Your task to perform on an android device: turn off picture-in-picture Image 0: 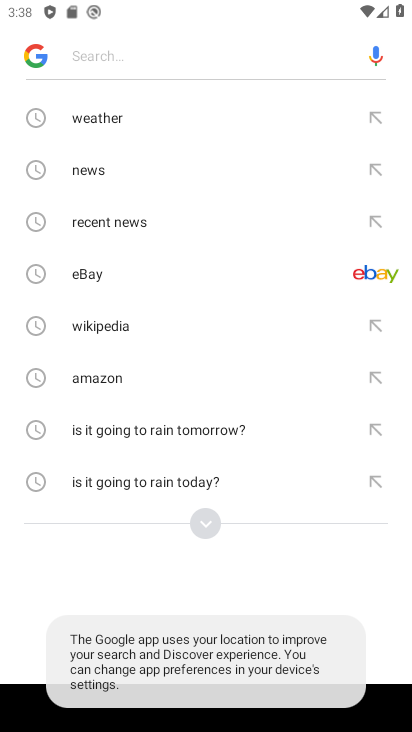
Step 0: press back button
Your task to perform on an android device: turn off picture-in-picture Image 1: 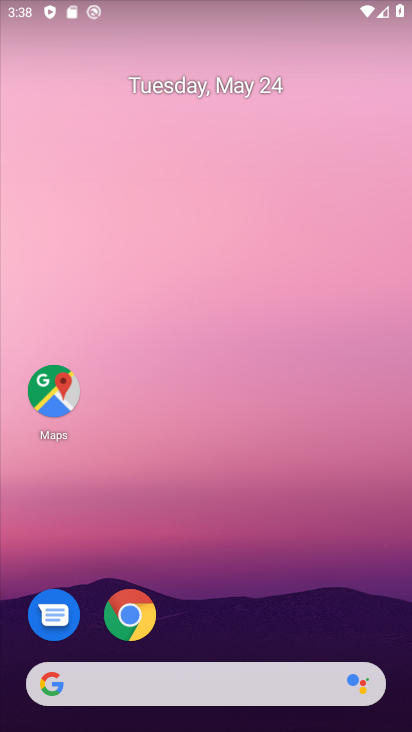
Step 1: drag from (283, 600) to (251, 51)
Your task to perform on an android device: turn off picture-in-picture Image 2: 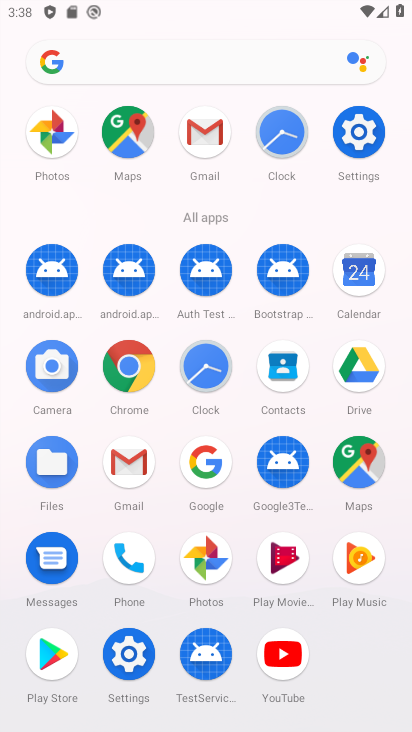
Step 2: click (358, 129)
Your task to perform on an android device: turn off picture-in-picture Image 3: 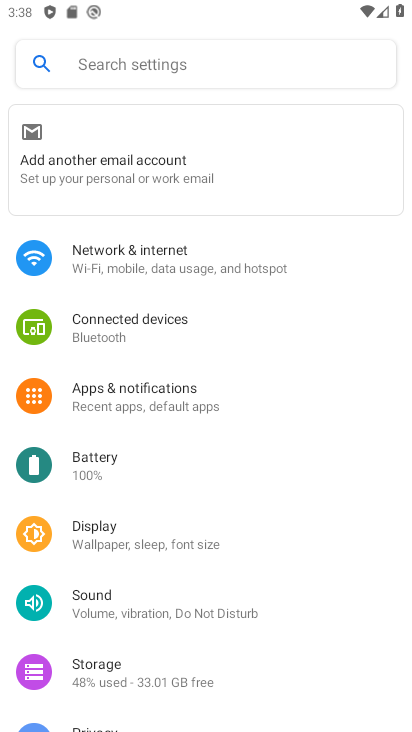
Step 3: drag from (240, 550) to (255, 140)
Your task to perform on an android device: turn off picture-in-picture Image 4: 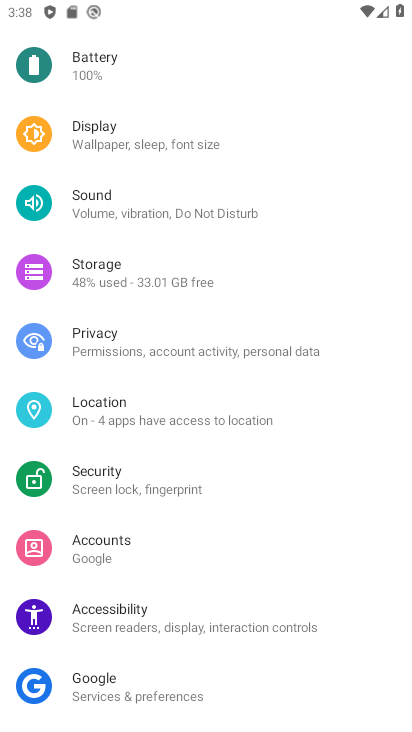
Step 4: drag from (171, 540) to (209, 117)
Your task to perform on an android device: turn off picture-in-picture Image 5: 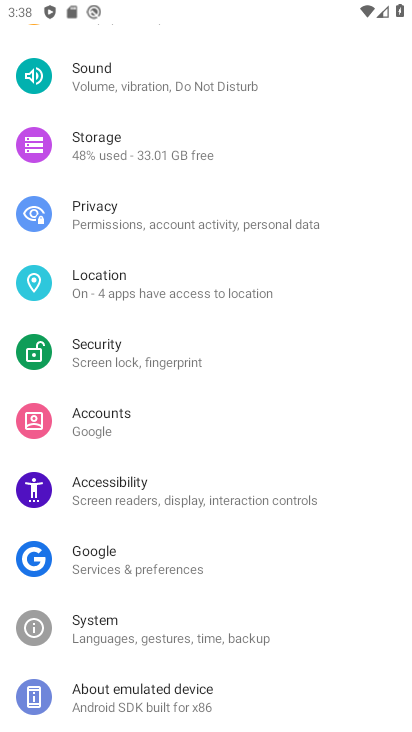
Step 5: drag from (191, 203) to (117, 542)
Your task to perform on an android device: turn off picture-in-picture Image 6: 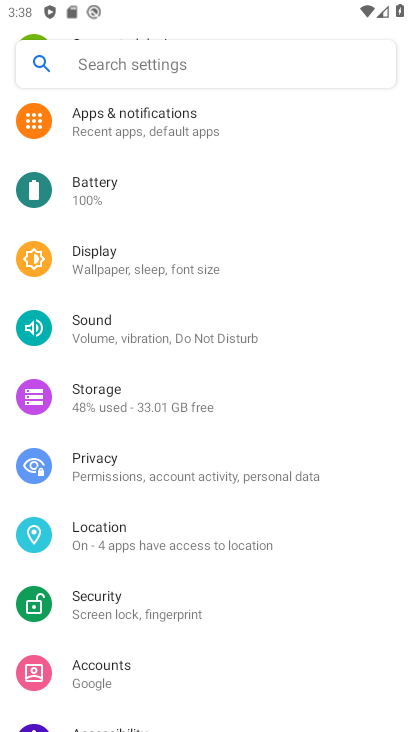
Step 6: click (173, 142)
Your task to perform on an android device: turn off picture-in-picture Image 7: 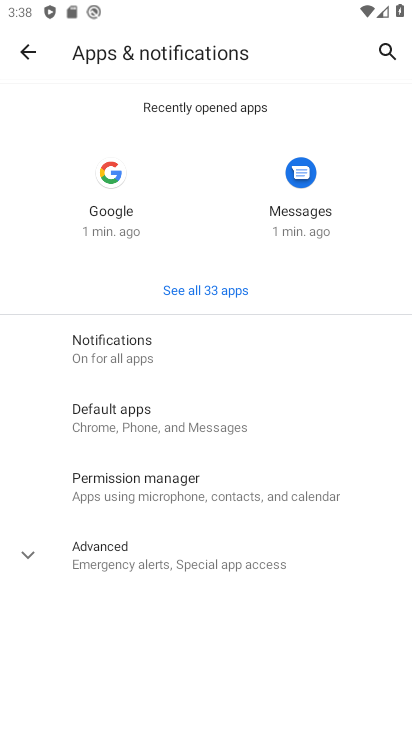
Step 7: click (46, 550)
Your task to perform on an android device: turn off picture-in-picture Image 8: 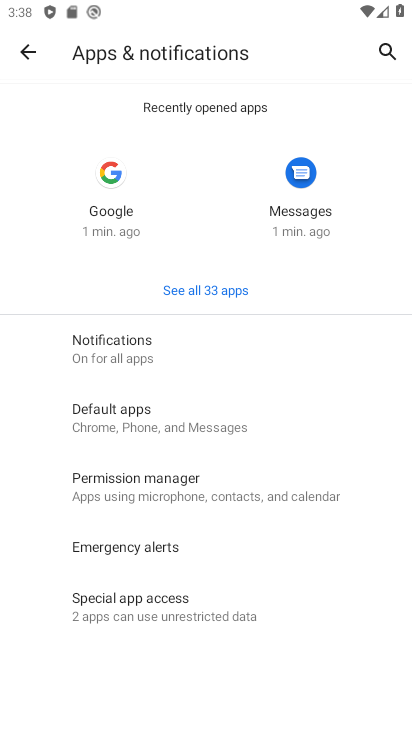
Step 8: click (158, 353)
Your task to perform on an android device: turn off picture-in-picture Image 9: 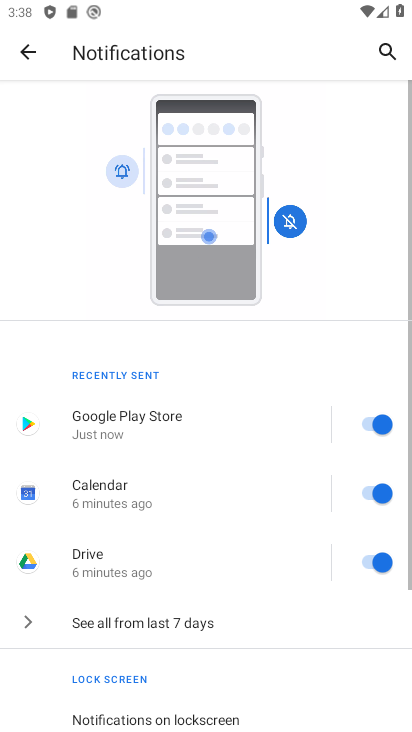
Step 9: click (36, 46)
Your task to perform on an android device: turn off picture-in-picture Image 10: 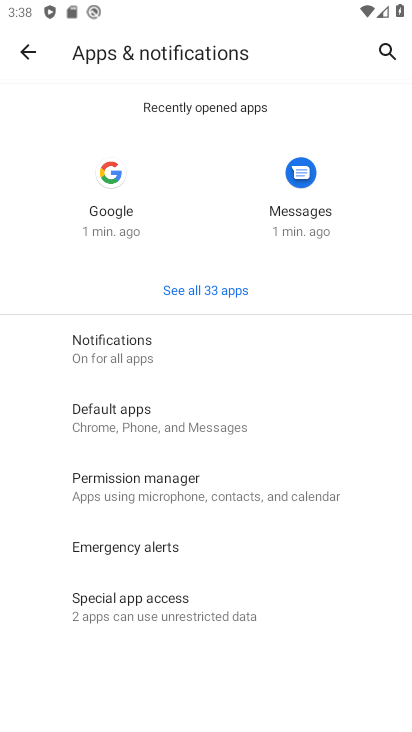
Step 10: press back button
Your task to perform on an android device: turn off picture-in-picture Image 11: 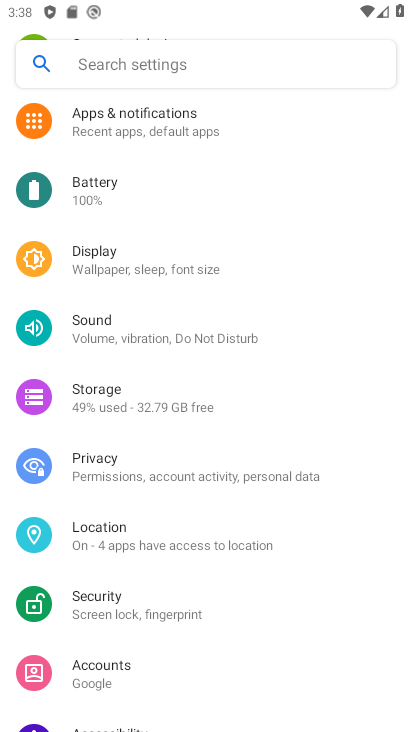
Step 11: click (169, 119)
Your task to perform on an android device: turn off picture-in-picture Image 12: 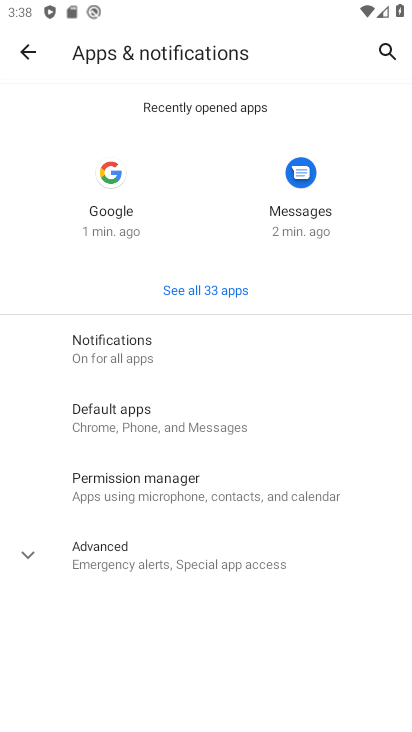
Step 12: click (50, 555)
Your task to perform on an android device: turn off picture-in-picture Image 13: 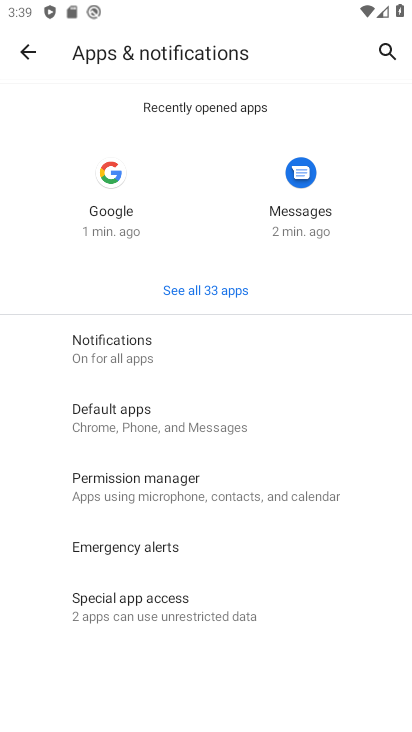
Step 13: click (160, 350)
Your task to perform on an android device: turn off picture-in-picture Image 14: 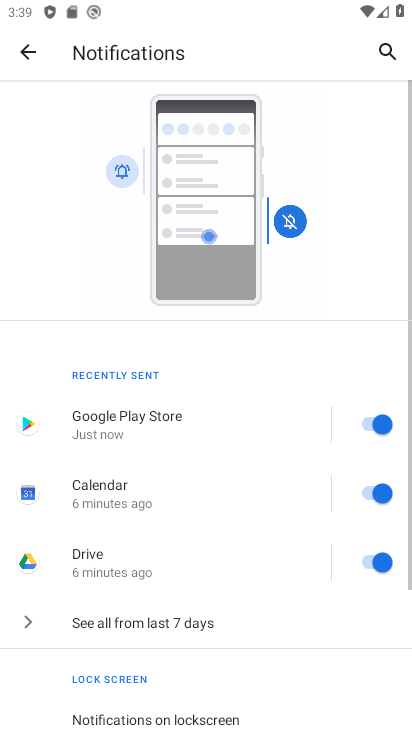
Step 14: drag from (249, 569) to (255, 115)
Your task to perform on an android device: turn off picture-in-picture Image 15: 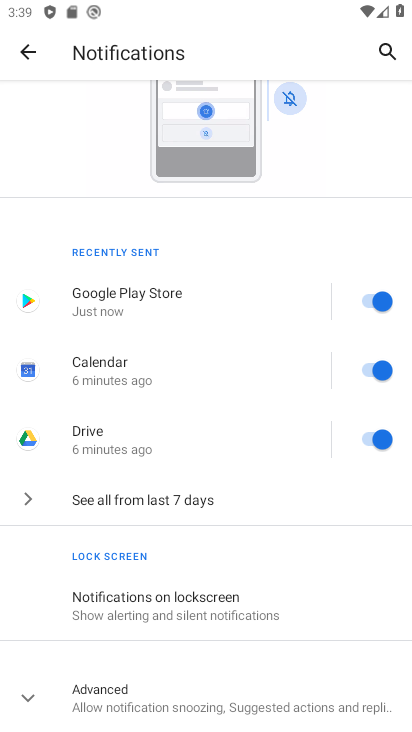
Step 15: click (55, 700)
Your task to perform on an android device: turn off picture-in-picture Image 16: 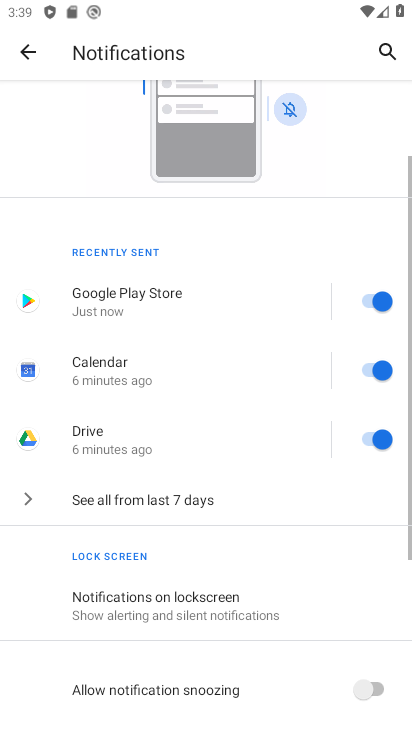
Step 16: drag from (208, 629) to (242, 158)
Your task to perform on an android device: turn off picture-in-picture Image 17: 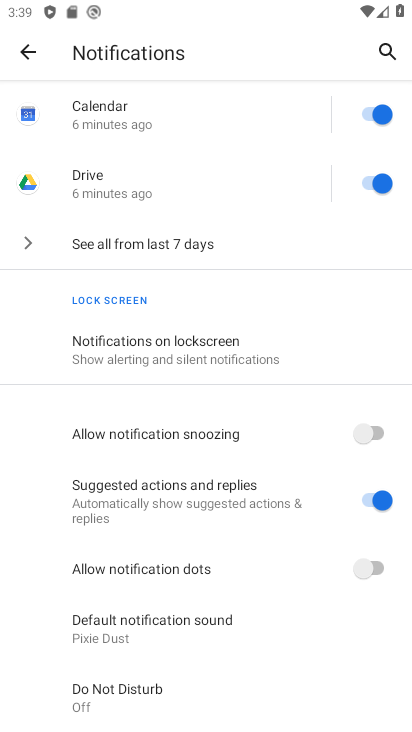
Step 17: drag from (180, 637) to (232, 188)
Your task to perform on an android device: turn off picture-in-picture Image 18: 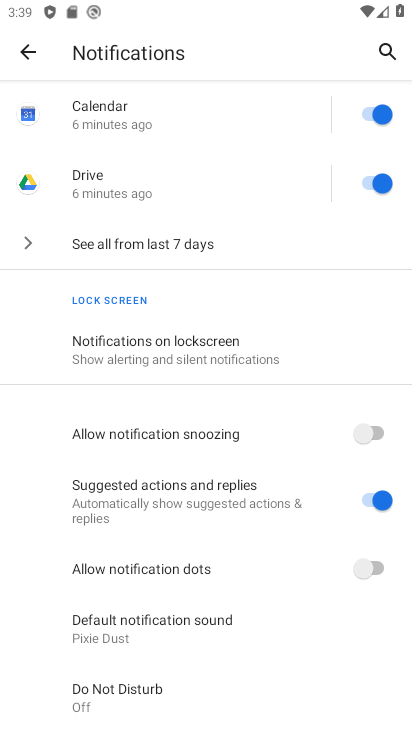
Step 18: drag from (238, 199) to (193, 567)
Your task to perform on an android device: turn off picture-in-picture Image 19: 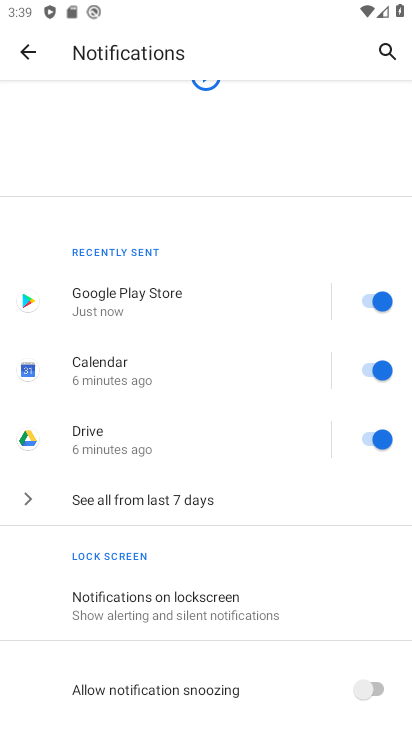
Step 19: drag from (180, 209) to (176, 633)
Your task to perform on an android device: turn off picture-in-picture Image 20: 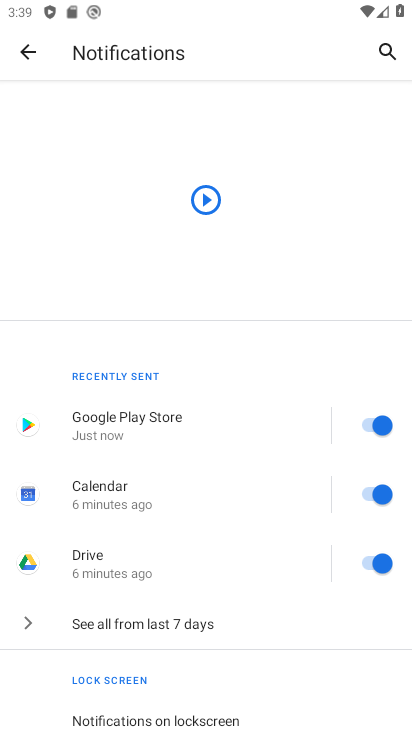
Step 20: click (29, 45)
Your task to perform on an android device: turn off picture-in-picture Image 21: 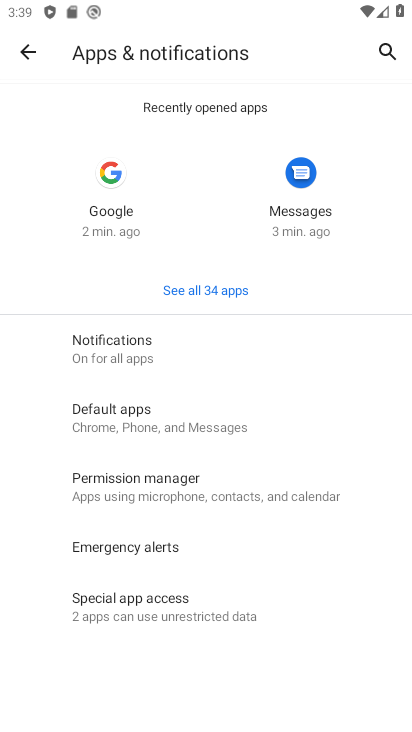
Step 21: click (112, 626)
Your task to perform on an android device: turn off picture-in-picture Image 22: 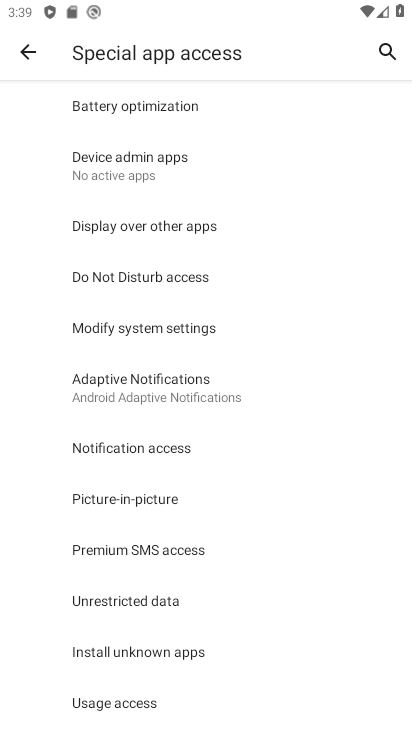
Step 22: click (128, 493)
Your task to perform on an android device: turn off picture-in-picture Image 23: 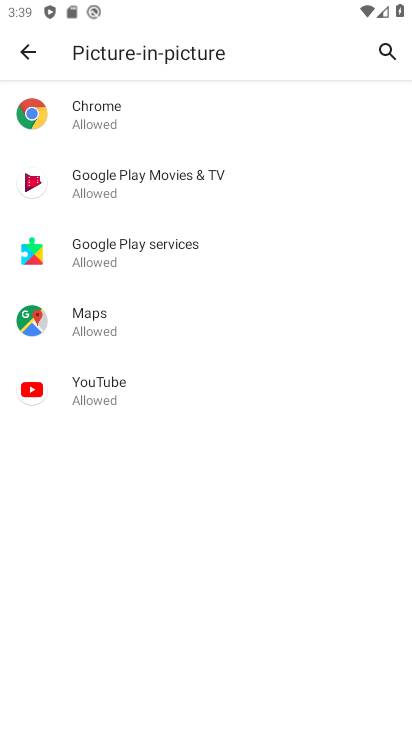
Step 23: click (109, 112)
Your task to perform on an android device: turn off picture-in-picture Image 24: 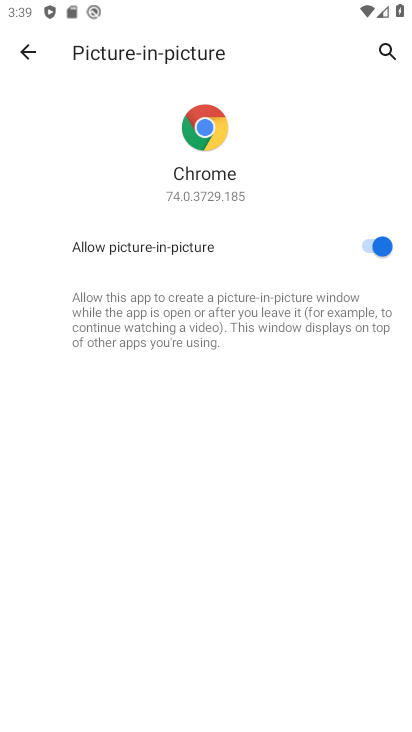
Step 24: click (371, 252)
Your task to perform on an android device: turn off picture-in-picture Image 25: 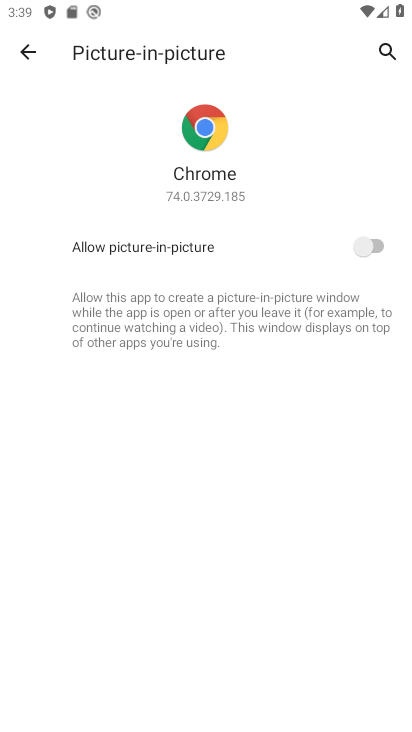
Step 25: click (28, 53)
Your task to perform on an android device: turn off picture-in-picture Image 26: 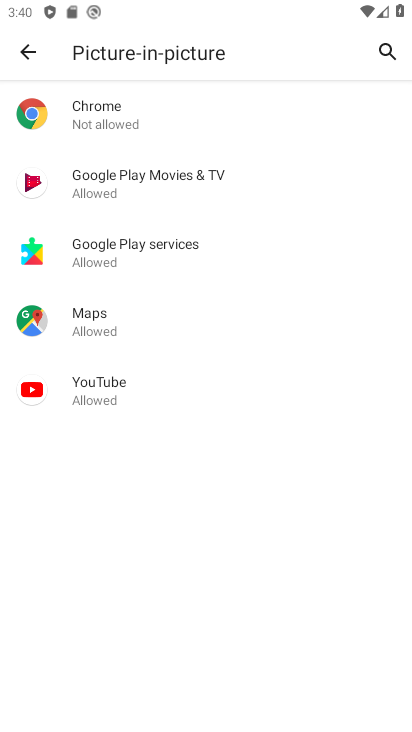
Step 26: click (106, 189)
Your task to perform on an android device: turn off picture-in-picture Image 27: 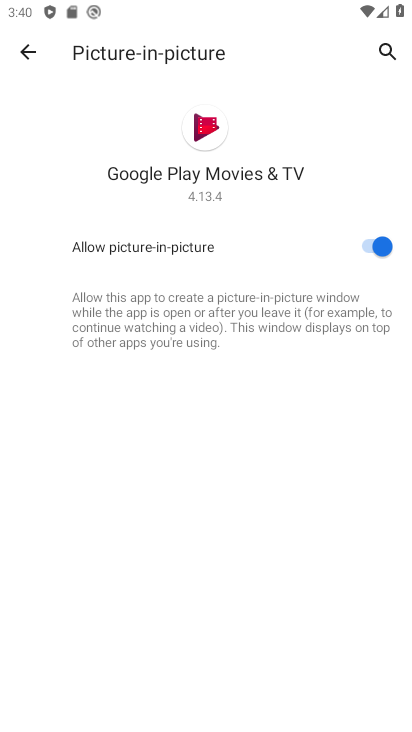
Step 27: click (368, 245)
Your task to perform on an android device: turn off picture-in-picture Image 28: 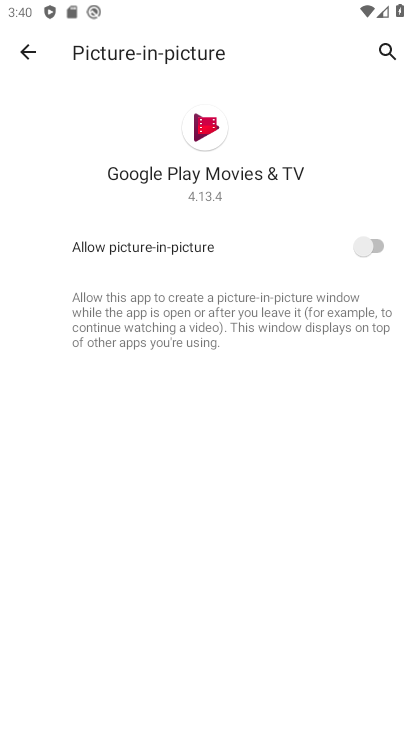
Step 28: click (24, 59)
Your task to perform on an android device: turn off picture-in-picture Image 29: 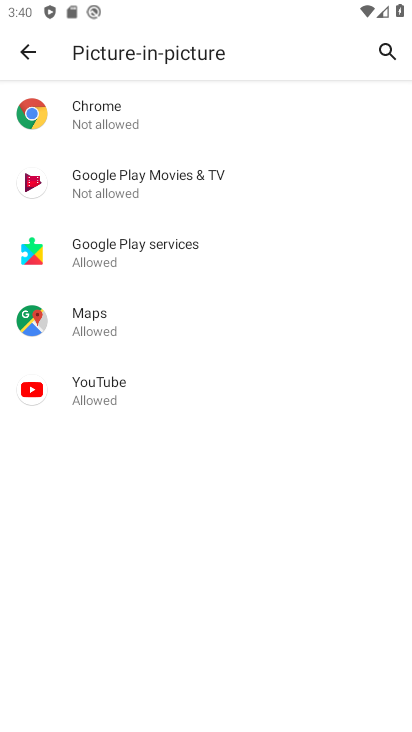
Step 29: click (105, 255)
Your task to perform on an android device: turn off picture-in-picture Image 30: 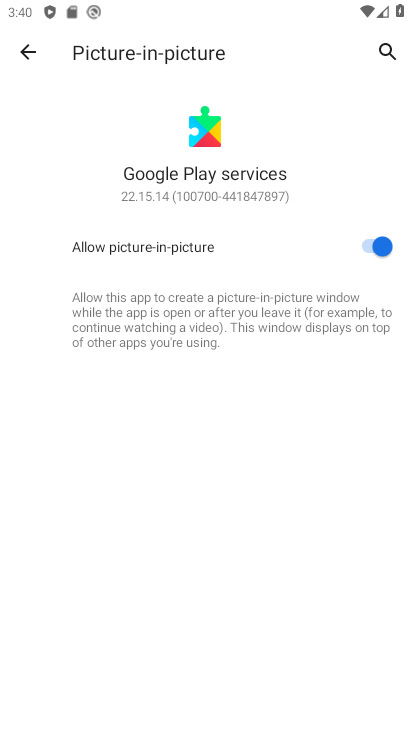
Step 30: click (382, 240)
Your task to perform on an android device: turn off picture-in-picture Image 31: 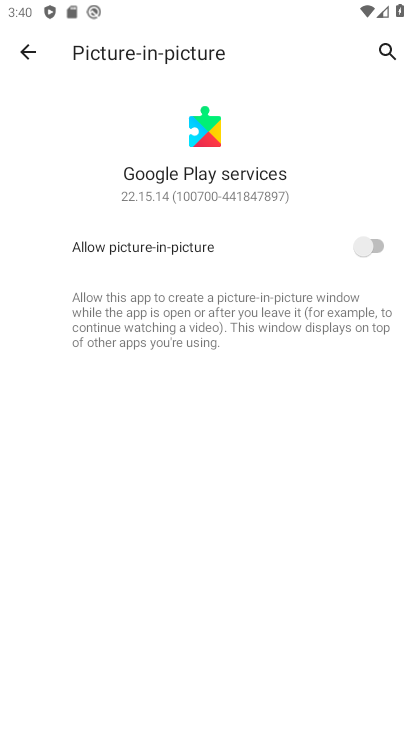
Step 31: click (28, 45)
Your task to perform on an android device: turn off picture-in-picture Image 32: 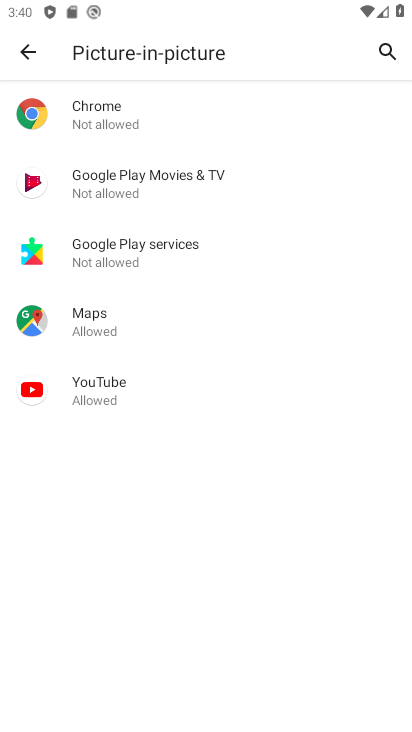
Step 32: click (99, 327)
Your task to perform on an android device: turn off picture-in-picture Image 33: 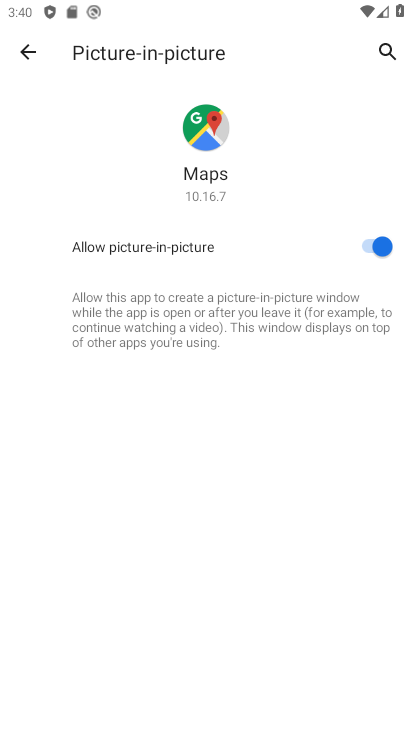
Step 33: click (379, 245)
Your task to perform on an android device: turn off picture-in-picture Image 34: 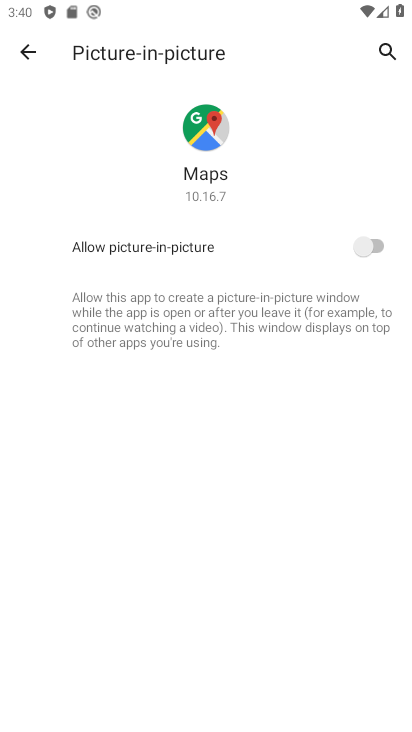
Step 34: click (24, 47)
Your task to perform on an android device: turn off picture-in-picture Image 35: 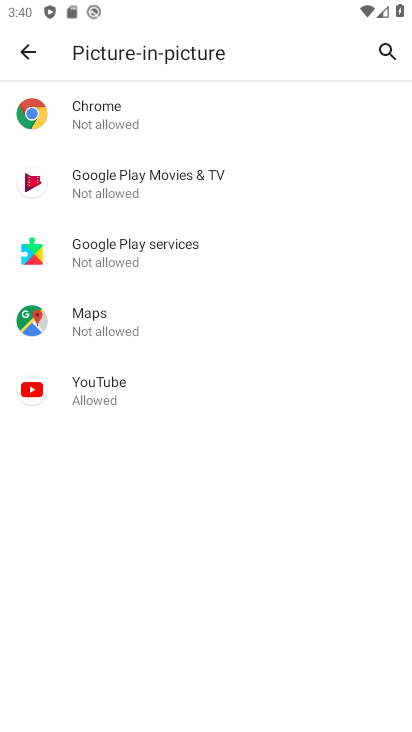
Step 35: click (59, 395)
Your task to perform on an android device: turn off picture-in-picture Image 36: 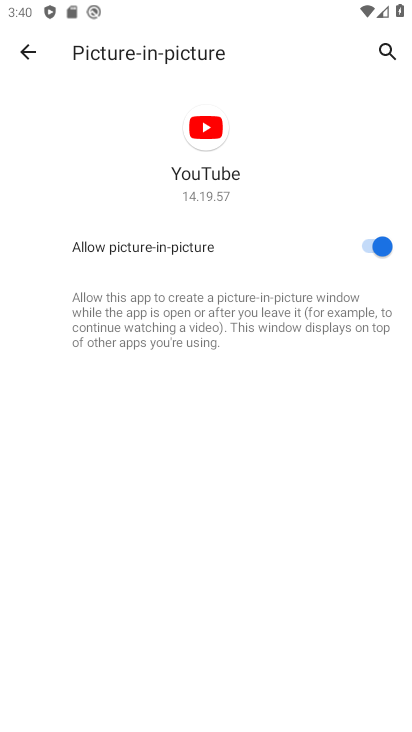
Step 36: click (365, 249)
Your task to perform on an android device: turn off picture-in-picture Image 37: 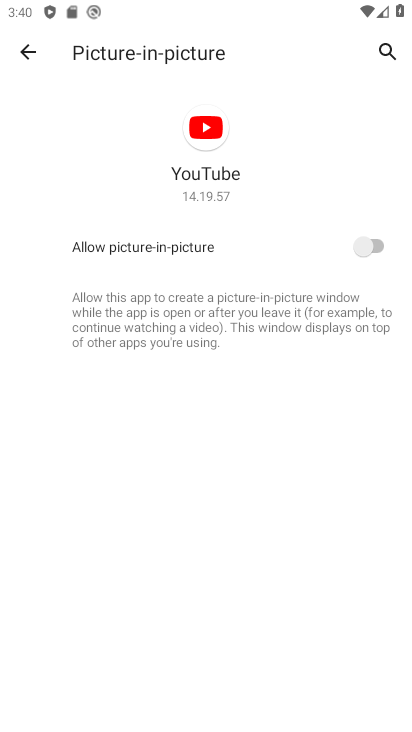
Step 37: click (18, 48)
Your task to perform on an android device: turn off picture-in-picture Image 38: 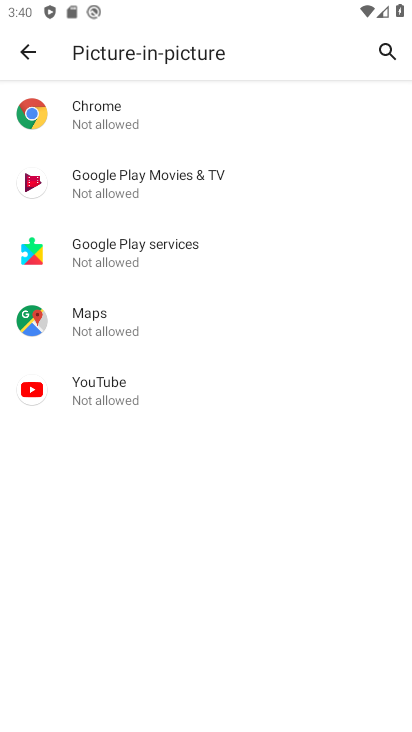
Step 38: task complete